Your task to perform on an android device: Show me popular videos on Youtube Image 0: 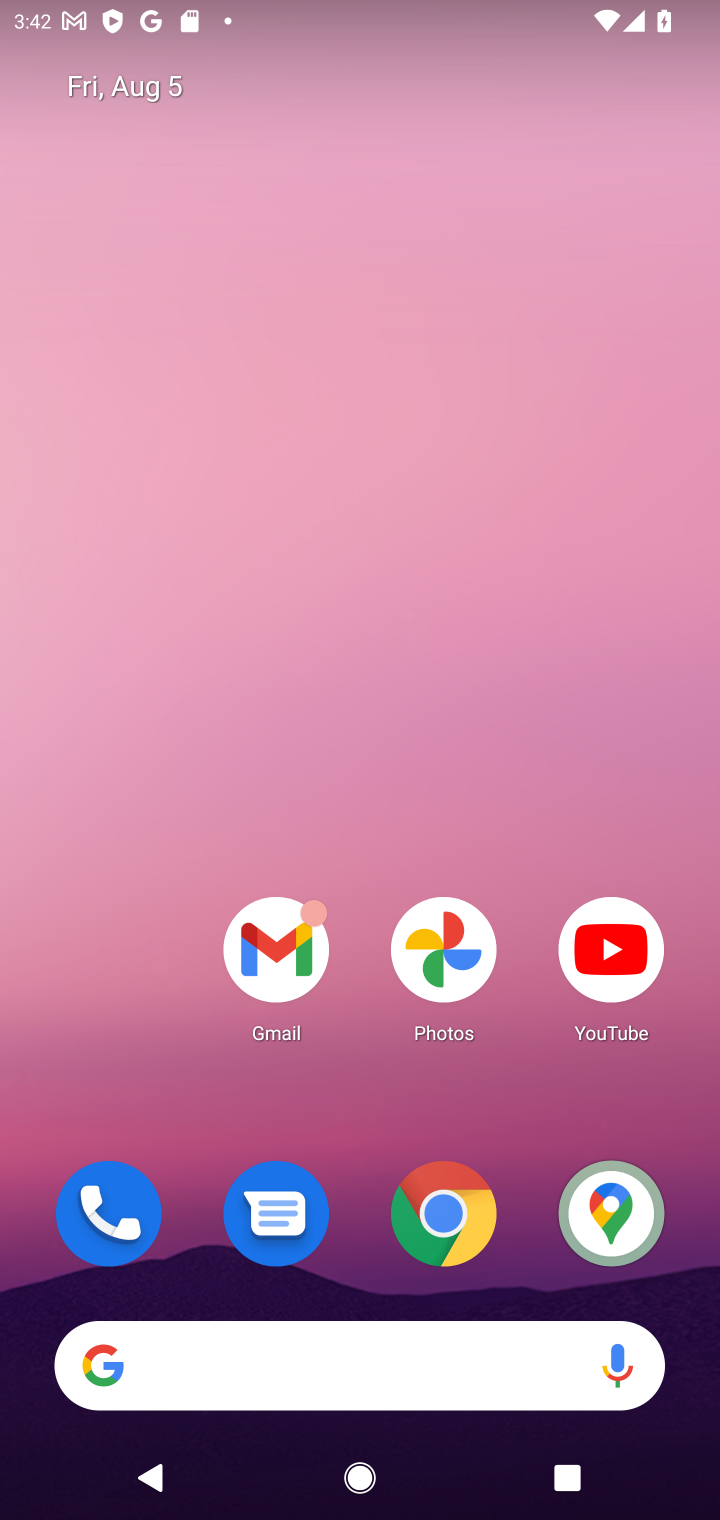
Step 0: click (605, 914)
Your task to perform on an android device: Show me popular videos on Youtube Image 1: 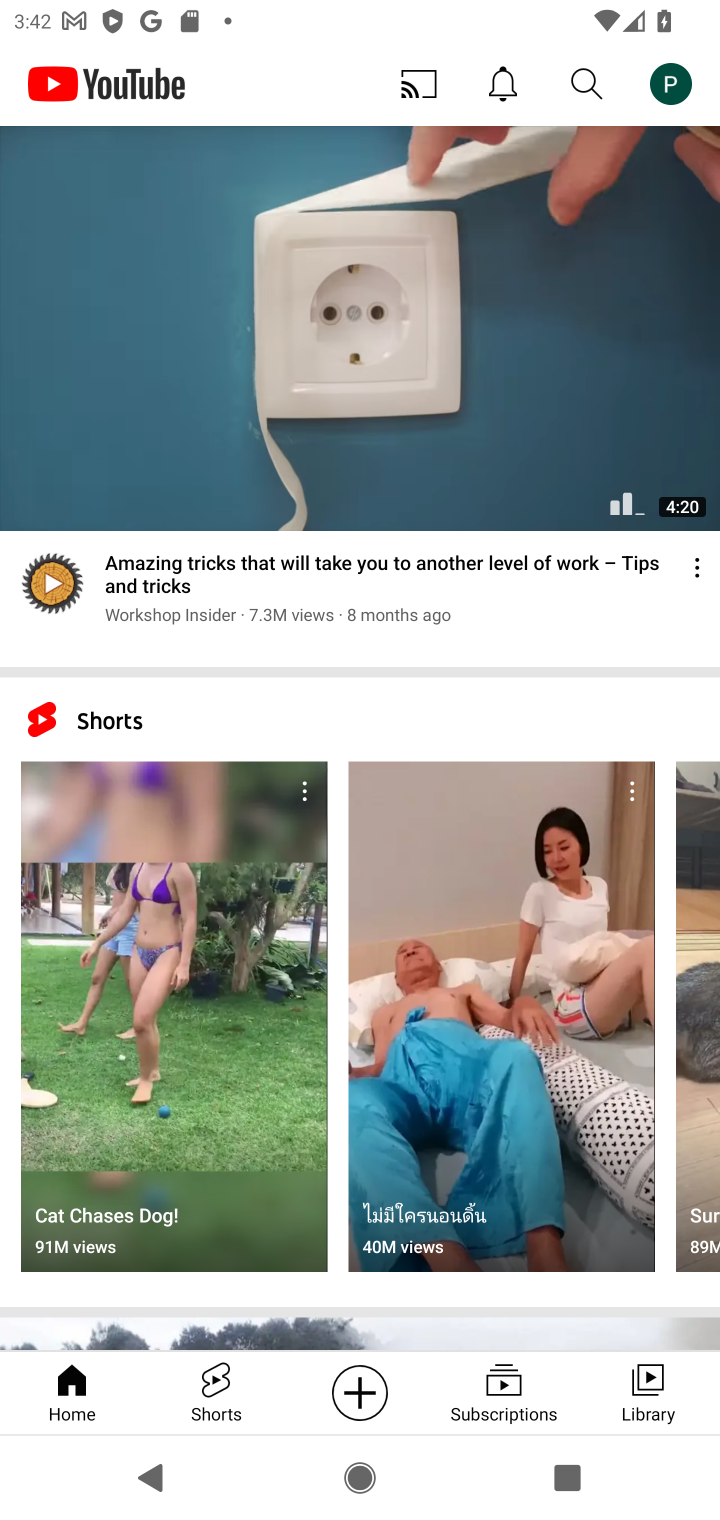
Step 1: task complete